Your task to perform on an android device: open app "Nova Launcher" (install if not already installed) and go to login screen Image 0: 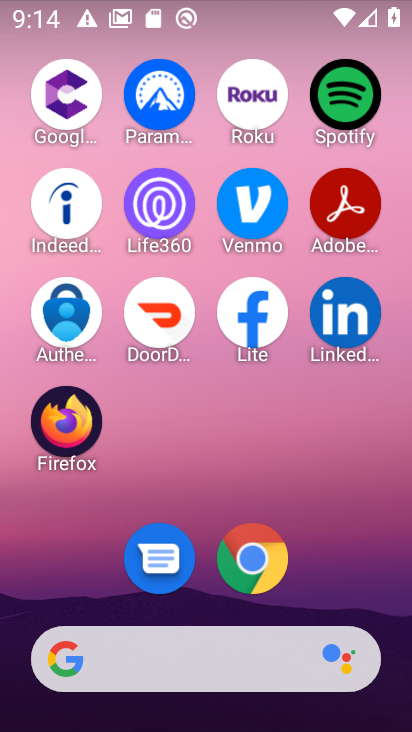
Step 0: drag from (208, 627) to (193, 102)
Your task to perform on an android device: open app "Nova Launcher" (install if not already installed) and go to login screen Image 1: 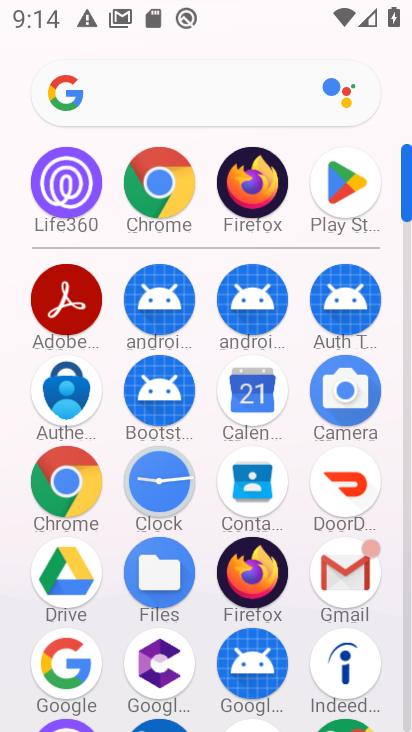
Step 1: click (330, 208)
Your task to perform on an android device: open app "Nova Launcher" (install if not already installed) and go to login screen Image 2: 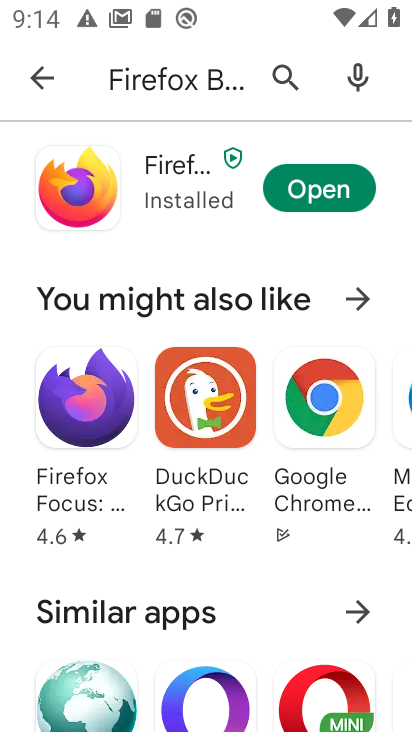
Step 2: drag from (278, 85) to (332, 85)
Your task to perform on an android device: open app "Nova Launcher" (install if not already installed) and go to login screen Image 3: 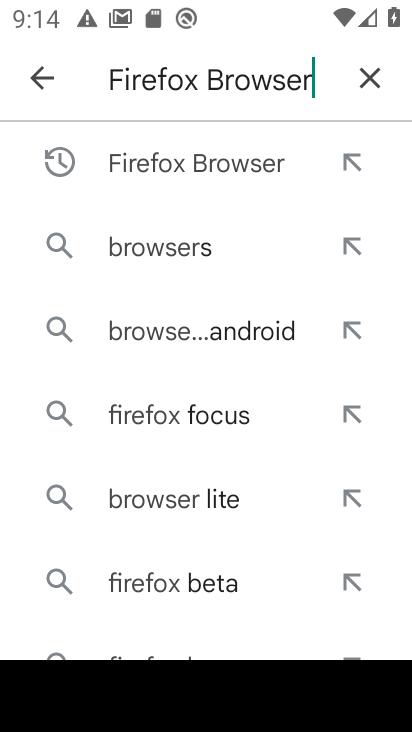
Step 3: click (359, 95)
Your task to perform on an android device: open app "Nova Launcher" (install if not already installed) and go to login screen Image 4: 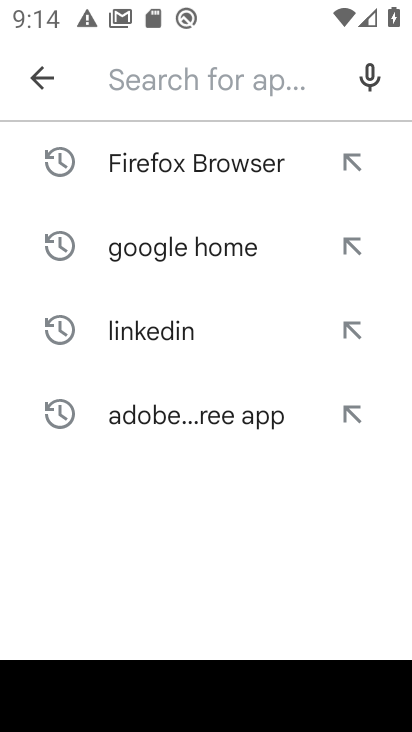
Step 4: click (306, 190)
Your task to perform on an android device: open app "Nova Launcher" (install if not already installed) and go to login screen Image 5: 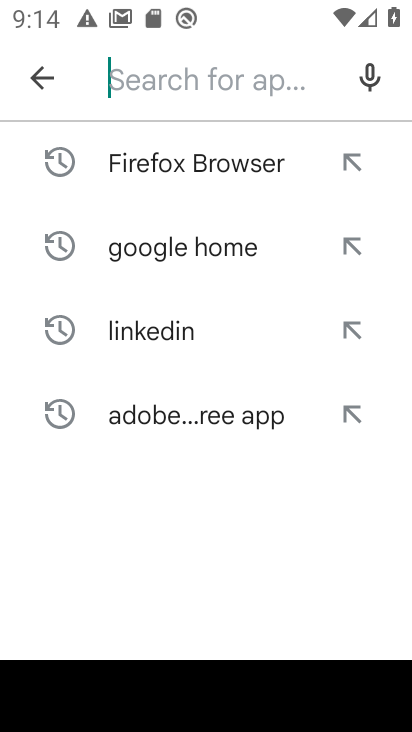
Step 5: type "nova launcher"
Your task to perform on an android device: open app "Nova Launcher" (install if not already installed) and go to login screen Image 6: 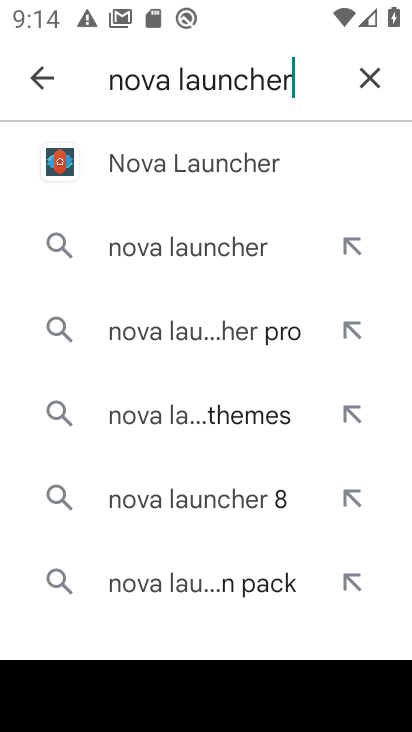
Step 6: click (129, 184)
Your task to perform on an android device: open app "Nova Launcher" (install if not already installed) and go to login screen Image 7: 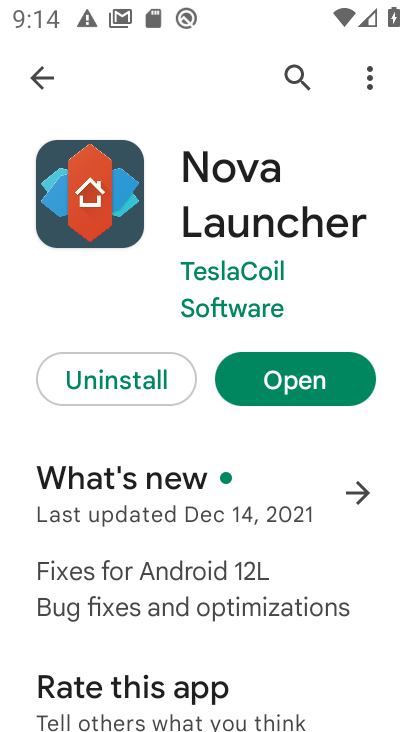
Step 7: click (279, 370)
Your task to perform on an android device: open app "Nova Launcher" (install if not already installed) and go to login screen Image 8: 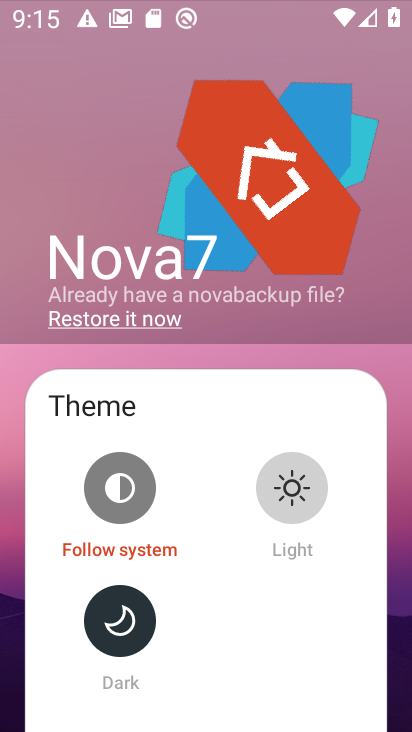
Step 8: drag from (309, 649) to (5, 678)
Your task to perform on an android device: open app "Nova Launcher" (install if not already installed) and go to login screen Image 9: 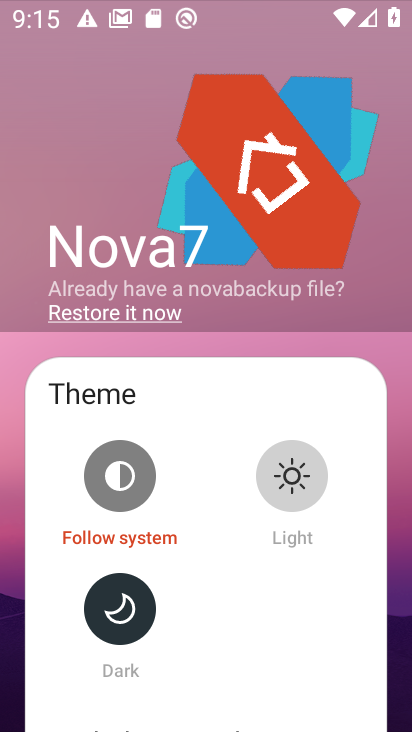
Step 9: click (124, 481)
Your task to perform on an android device: open app "Nova Launcher" (install if not already installed) and go to login screen Image 10: 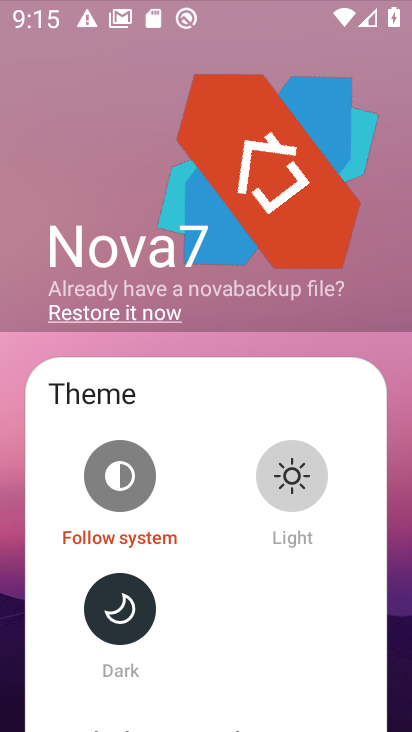
Step 10: task complete